Your task to perform on an android device: turn on location history Image 0: 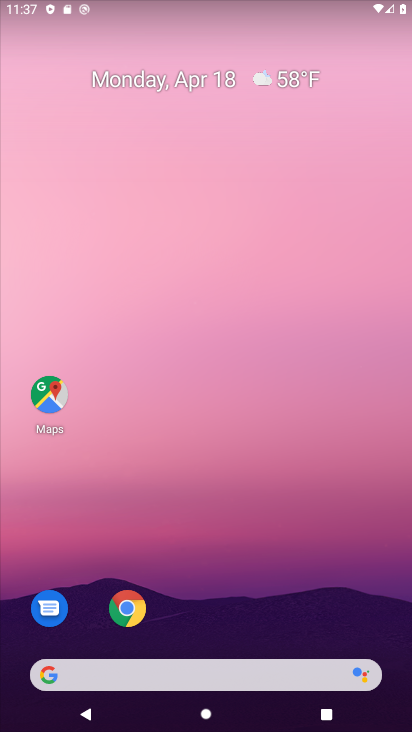
Step 0: drag from (317, 417) to (301, 106)
Your task to perform on an android device: turn on location history Image 1: 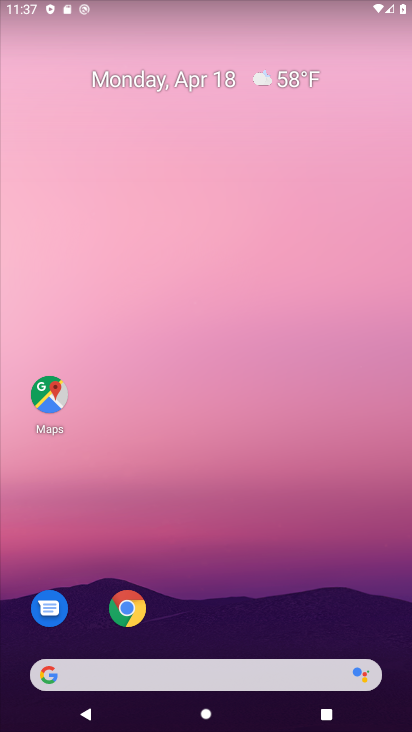
Step 1: drag from (351, 625) to (231, 200)
Your task to perform on an android device: turn on location history Image 2: 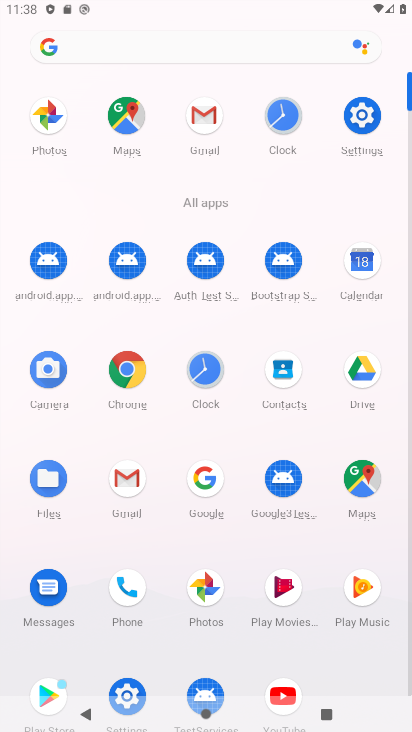
Step 2: click (352, 116)
Your task to perform on an android device: turn on location history Image 3: 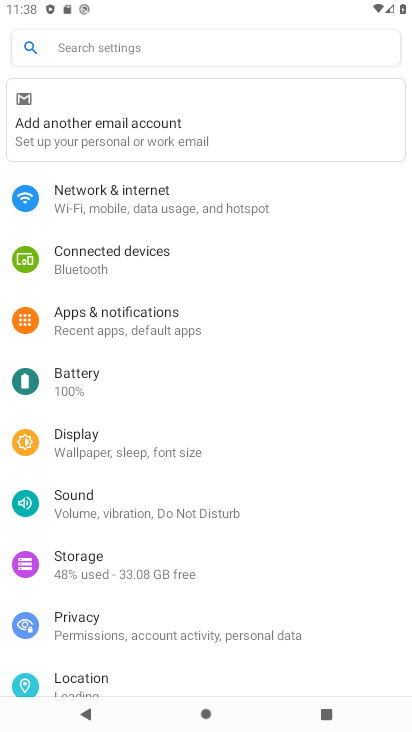
Step 3: drag from (191, 594) to (219, 350)
Your task to perform on an android device: turn on location history Image 4: 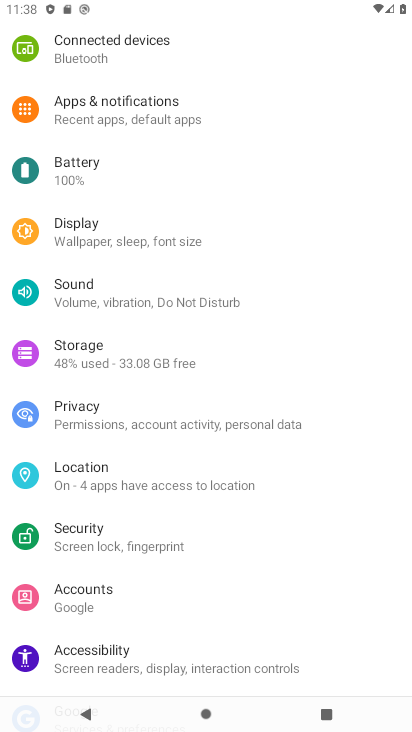
Step 4: click (100, 482)
Your task to perform on an android device: turn on location history Image 5: 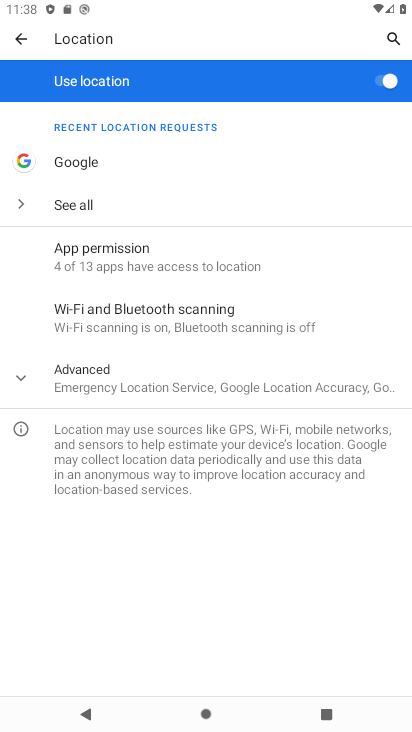
Step 5: click (116, 397)
Your task to perform on an android device: turn on location history Image 6: 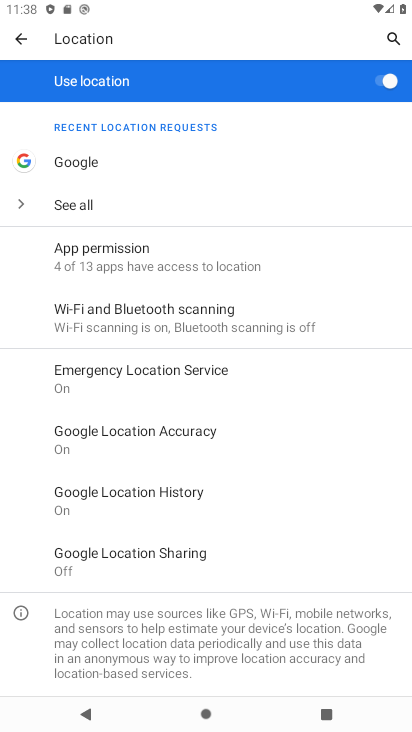
Step 6: click (171, 501)
Your task to perform on an android device: turn on location history Image 7: 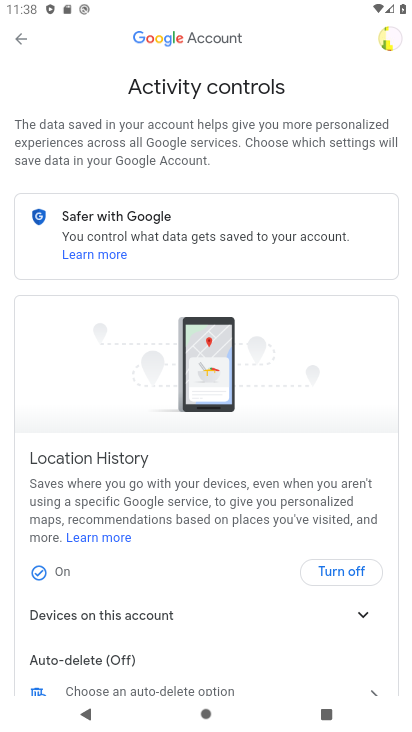
Step 7: task complete